Your task to perform on an android device: check storage Image 0: 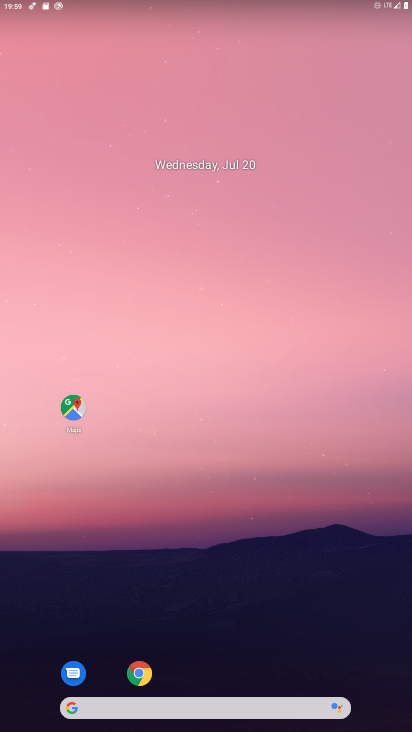
Step 0: drag from (255, 620) to (327, 85)
Your task to perform on an android device: check storage Image 1: 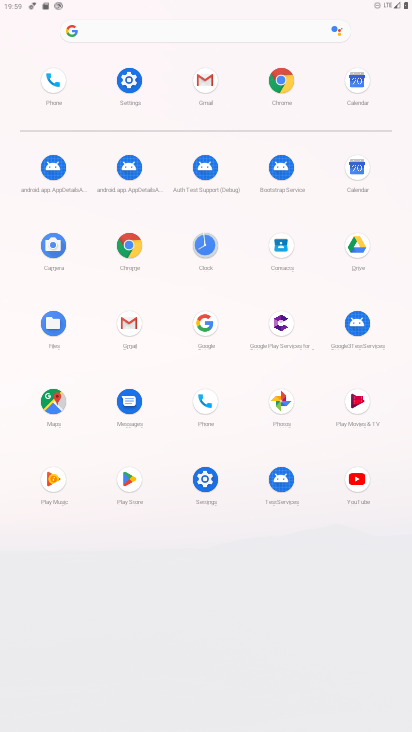
Step 1: click (127, 67)
Your task to perform on an android device: check storage Image 2: 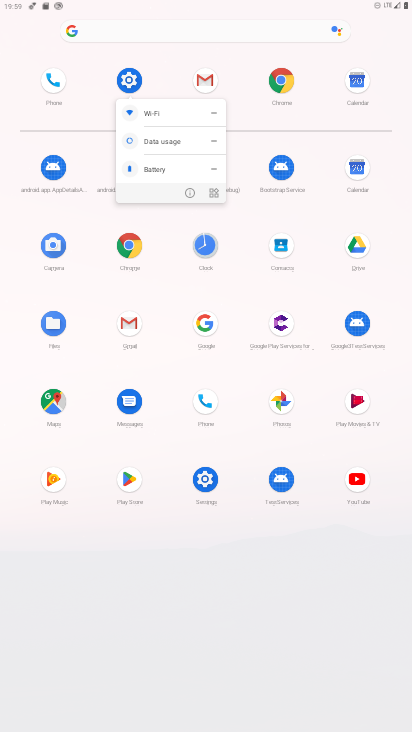
Step 2: click (119, 76)
Your task to perform on an android device: check storage Image 3: 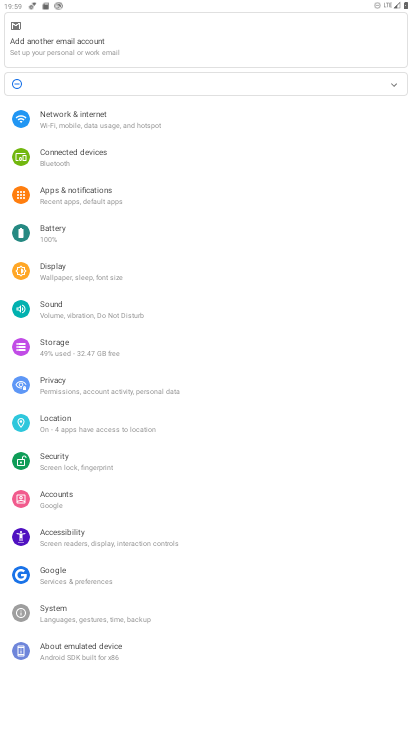
Step 3: click (92, 343)
Your task to perform on an android device: check storage Image 4: 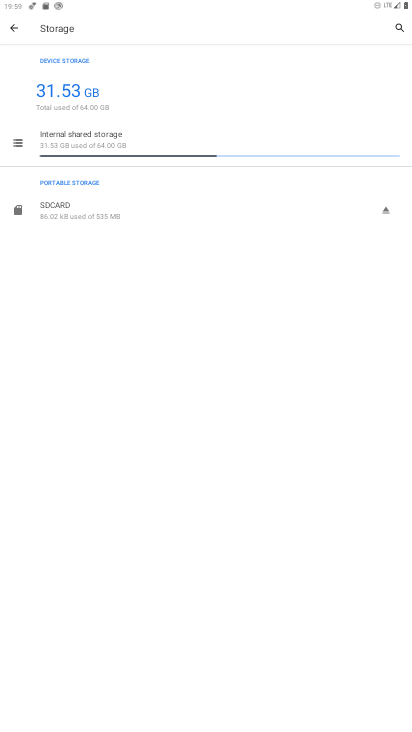
Step 4: click (67, 156)
Your task to perform on an android device: check storage Image 5: 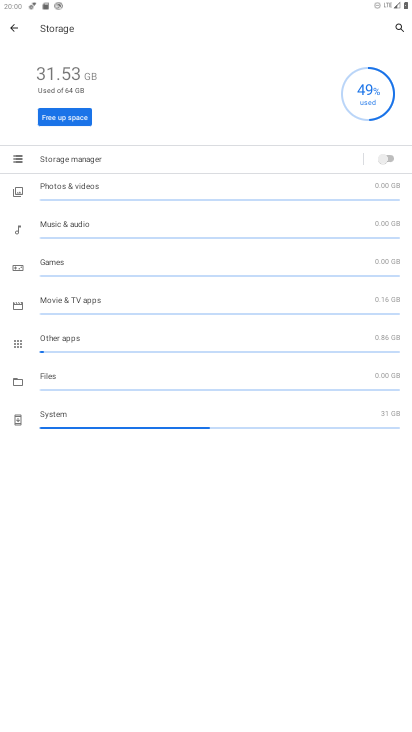
Step 5: task complete